Your task to perform on an android device: turn off airplane mode Image 0: 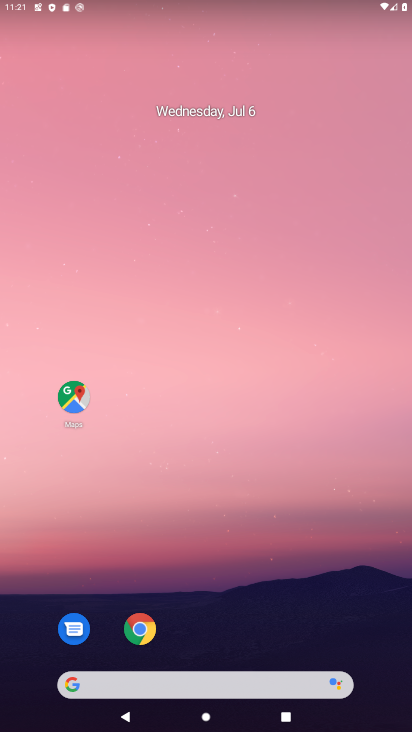
Step 0: drag from (236, 631) to (236, 183)
Your task to perform on an android device: turn off airplane mode Image 1: 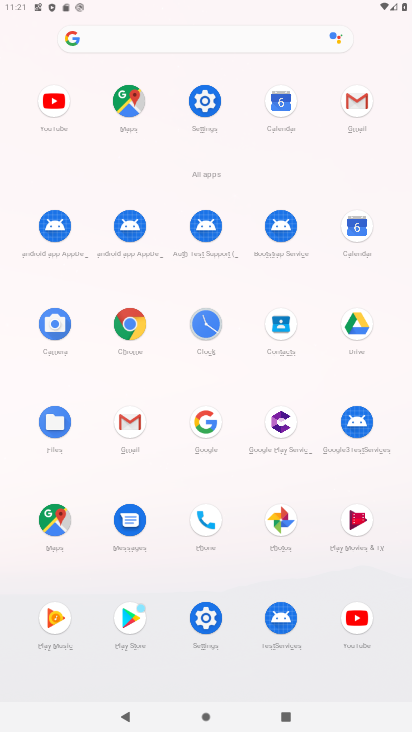
Step 1: click (208, 615)
Your task to perform on an android device: turn off airplane mode Image 2: 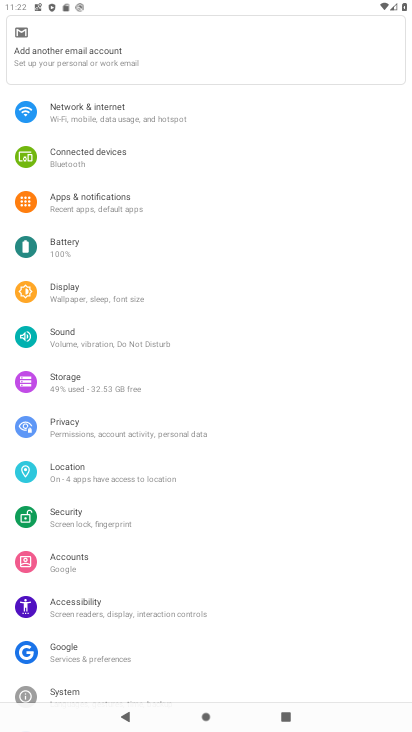
Step 2: click (129, 121)
Your task to perform on an android device: turn off airplane mode Image 3: 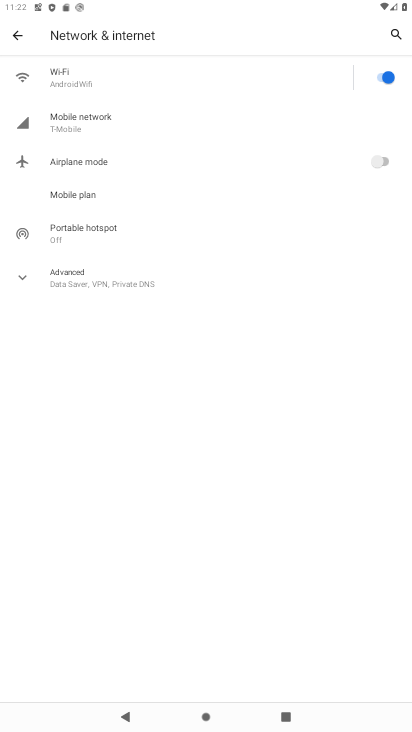
Step 3: task complete